Your task to perform on an android device: Go to calendar. Show me events next week Image 0: 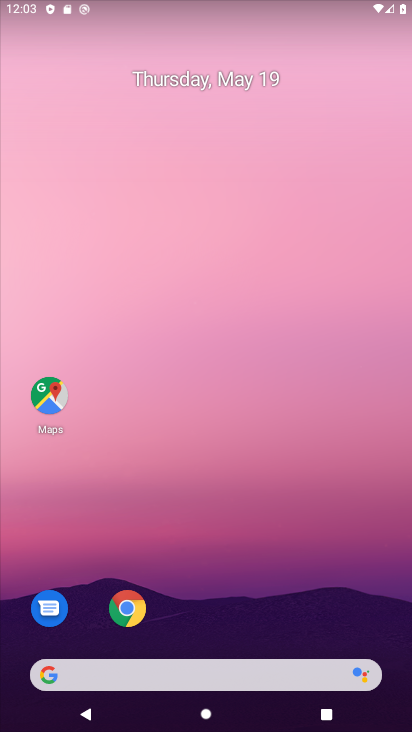
Step 0: drag from (258, 629) to (296, 243)
Your task to perform on an android device: Go to calendar. Show me events next week Image 1: 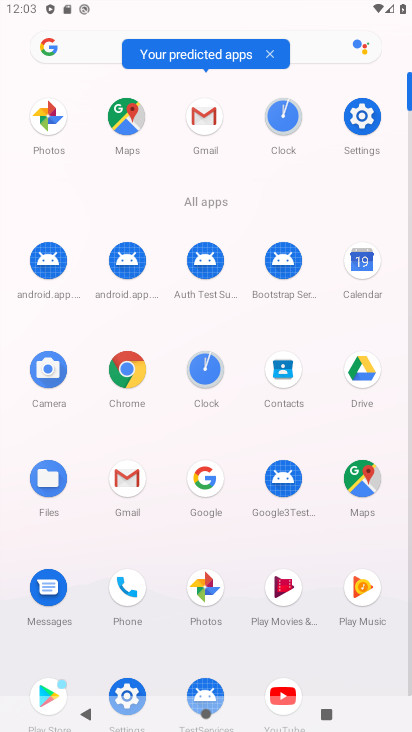
Step 1: click (360, 260)
Your task to perform on an android device: Go to calendar. Show me events next week Image 2: 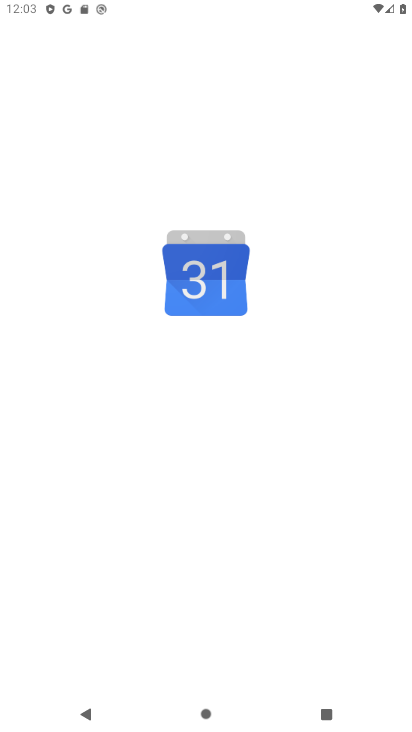
Step 2: click (353, 249)
Your task to perform on an android device: Go to calendar. Show me events next week Image 3: 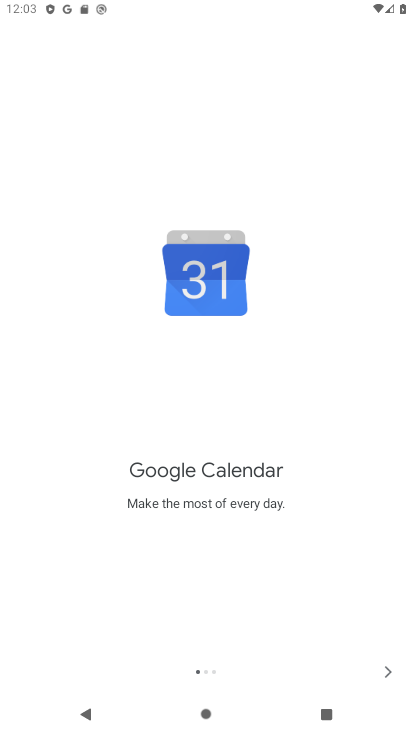
Step 3: click (377, 659)
Your task to perform on an android device: Go to calendar. Show me events next week Image 4: 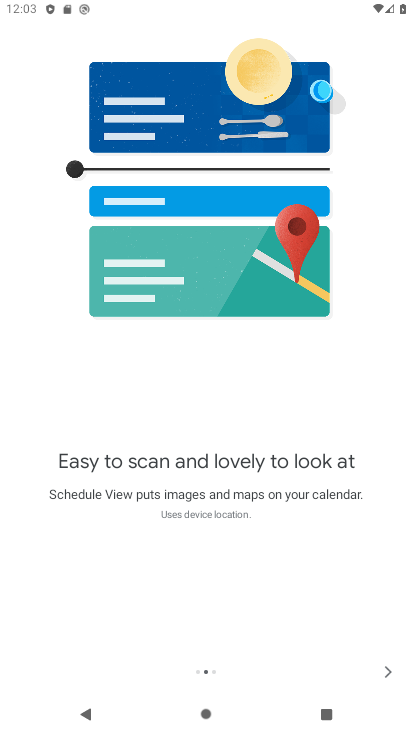
Step 4: click (382, 669)
Your task to perform on an android device: Go to calendar. Show me events next week Image 5: 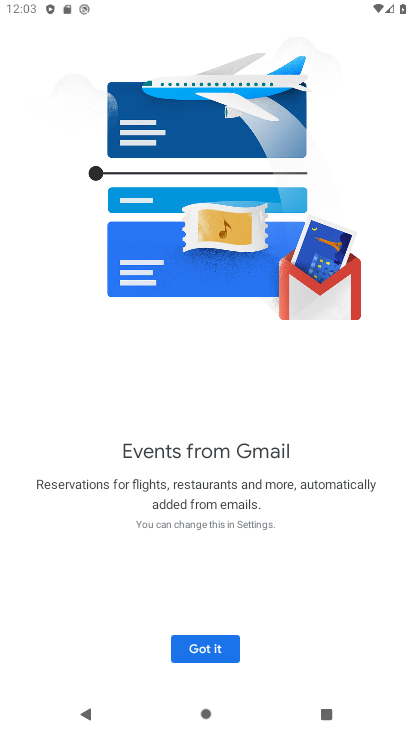
Step 5: click (222, 639)
Your task to perform on an android device: Go to calendar. Show me events next week Image 6: 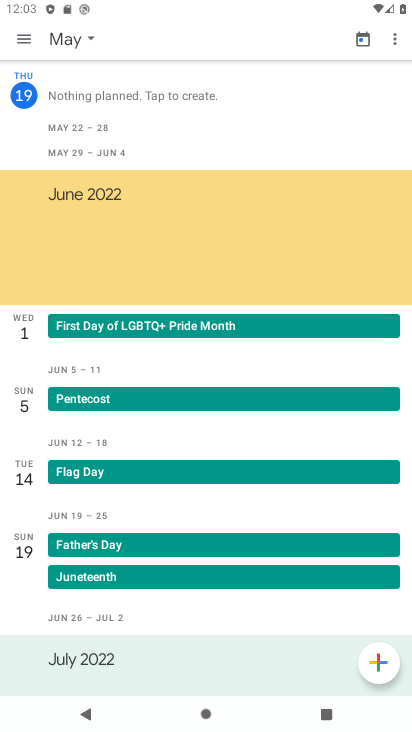
Step 6: click (28, 29)
Your task to perform on an android device: Go to calendar. Show me events next week Image 7: 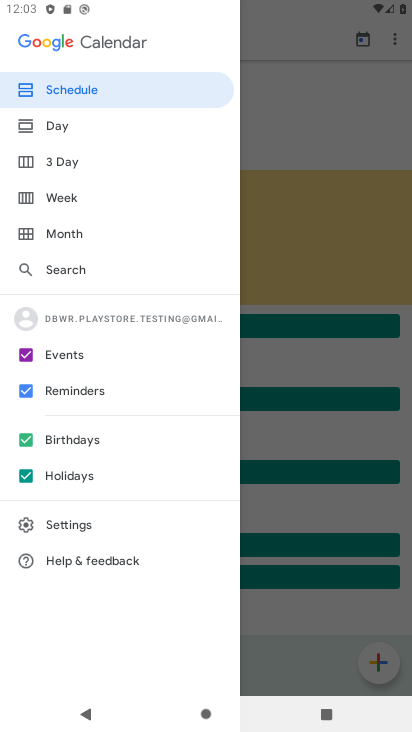
Step 7: click (91, 365)
Your task to perform on an android device: Go to calendar. Show me events next week Image 8: 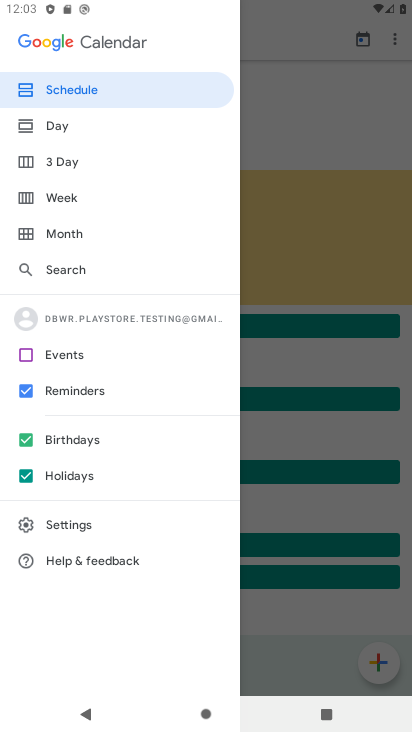
Step 8: task complete